Your task to perform on an android device: What's on my calendar tomorrow? Image 0: 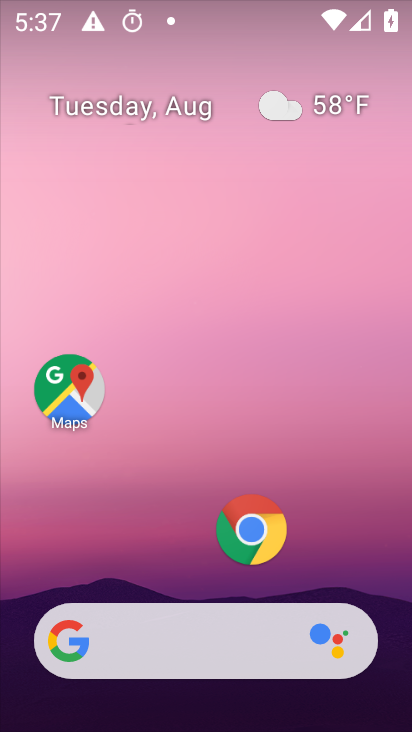
Step 0: drag from (196, 552) to (230, 194)
Your task to perform on an android device: What's on my calendar tomorrow? Image 1: 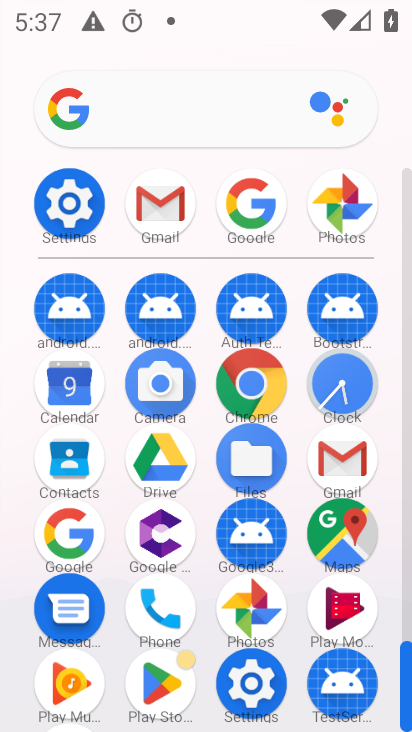
Step 1: click (77, 394)
Your task to perform on an android device: What's on my calendar tomorrow? Image 2: 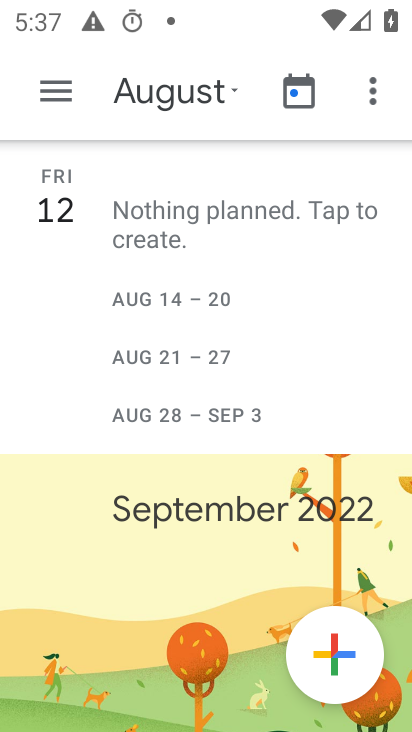
Step 2: click (236, 92)
Your task to perform on an android device: What's on my calendar tomorrow? Image 3: 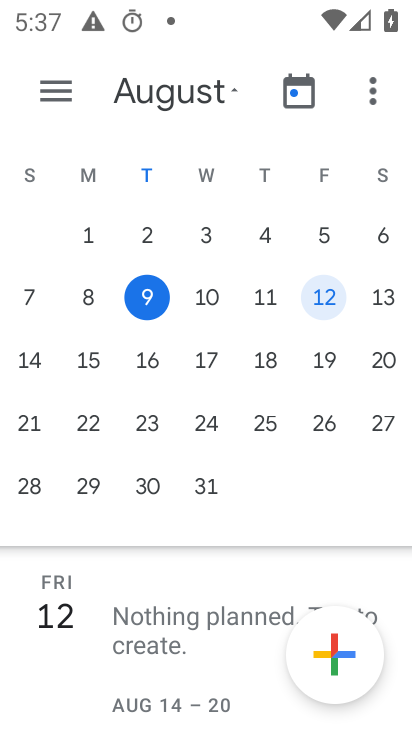
Step 3: click (214, 296)
Your task to perform on an android device: What's on my calendar tomorrow? Image 4: 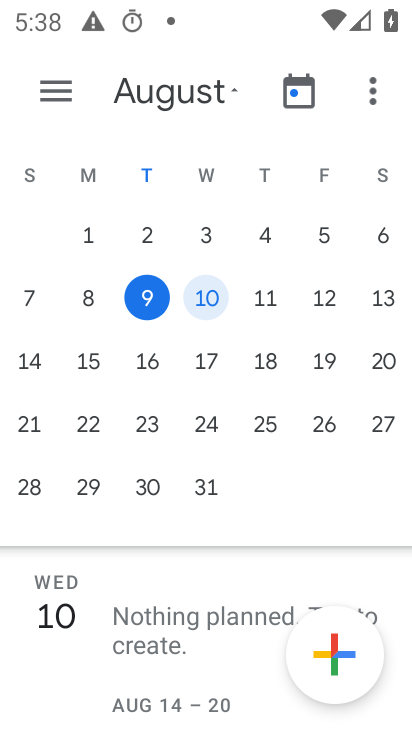
Step 4: click (200, 298)
Your task to perform on an android device: What's on my calendar tomorrow? Image 5: 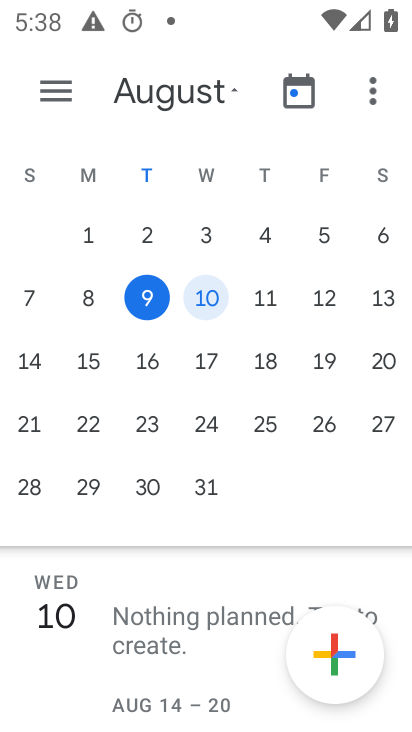
Step 5: task complete